Your task to perform on an android device: Toggle the flashlight Image 0: 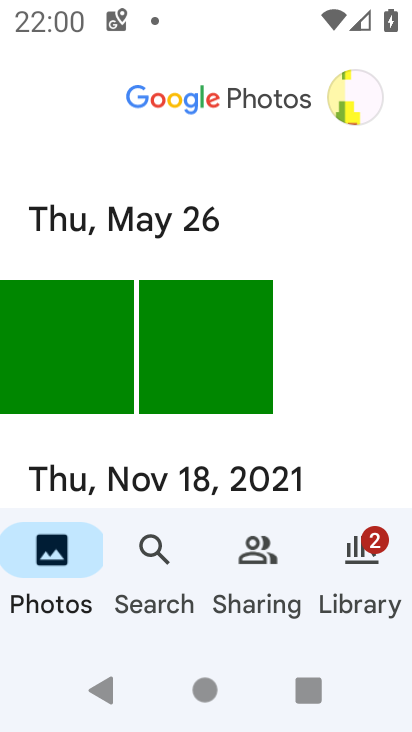
Step 0: drag from (176, 2) to (144, 386)
Your task to perform on an android device: Toggle the flashlight Image 1: 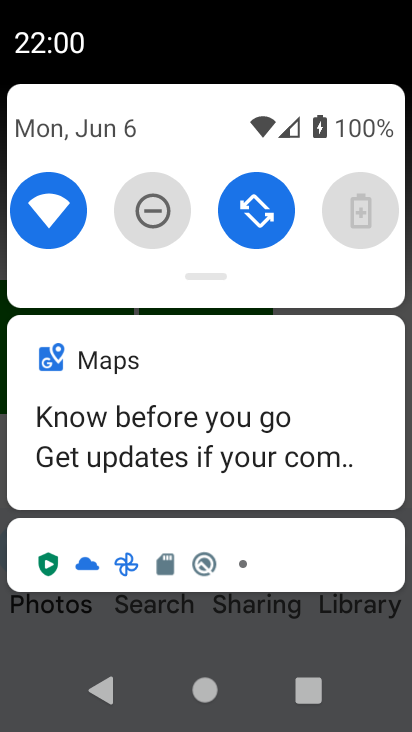
Step 1: task complete